Your task to perform on an android device: open wifi settings Image 0: 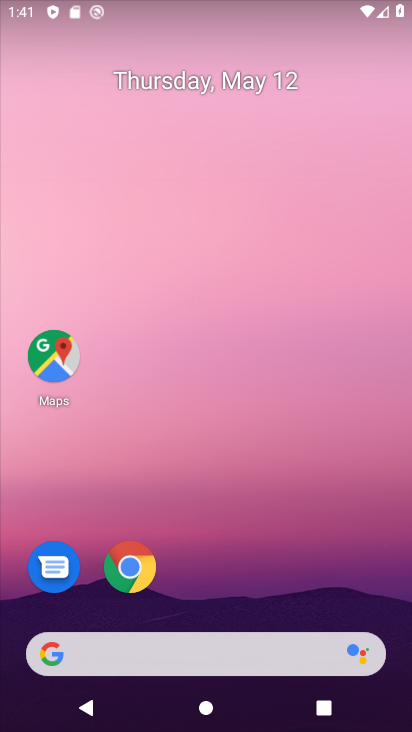
Step 0: click (169, 169)
Your task to perform on an android device: open wifi settings Image 1: 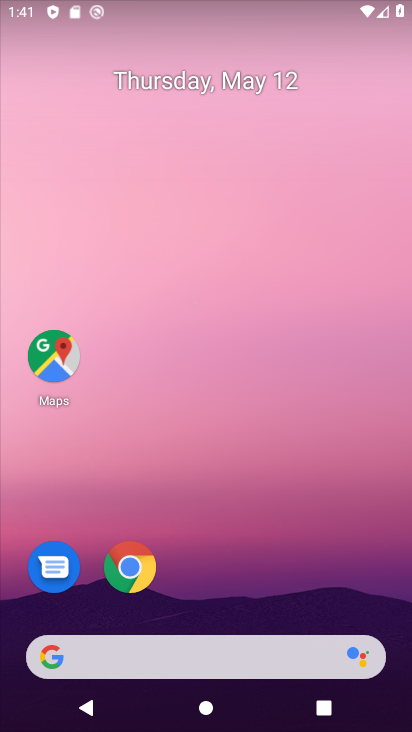
Step 1: drag from (230, 490) to (209, 212)
Your task to perform on an android device: open wifi settings Image 2: 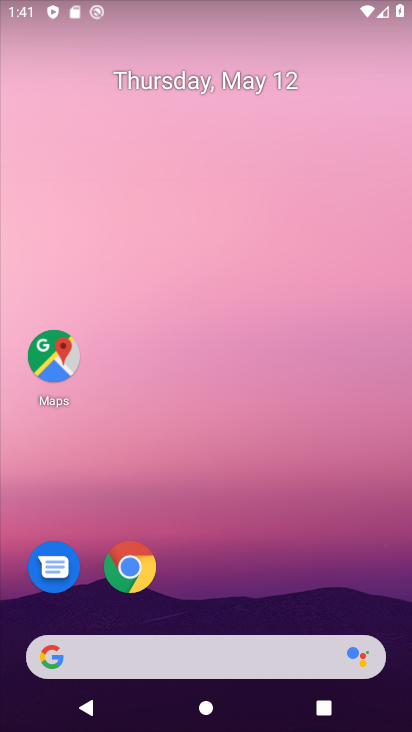
Step 2: drag from (186, 631) to (191, 268)
Your task to perform on an android device: open wifi settings Image 3: 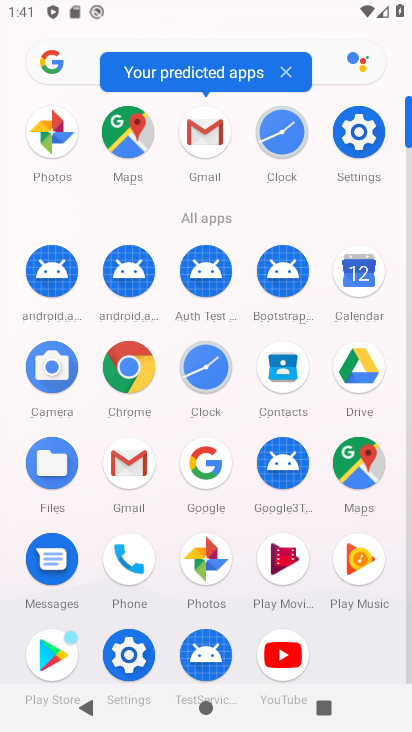
Step 3: click (362, 129)
Your task to perform on an android device: open wifi settings Image 4: 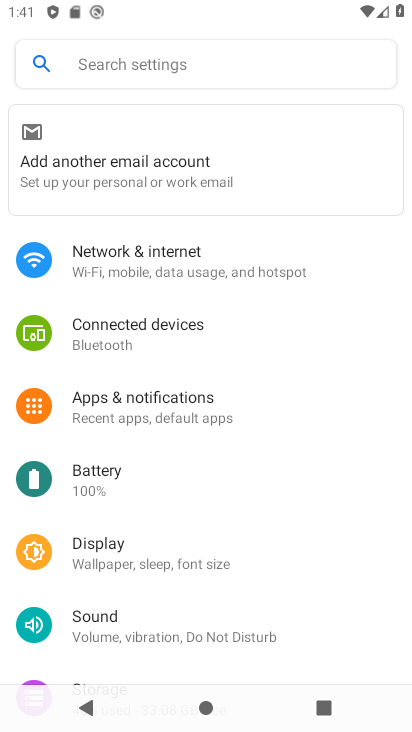
Step 4: click (183, 267)
Your task to perform on an android device: open wifi settings Image 5: 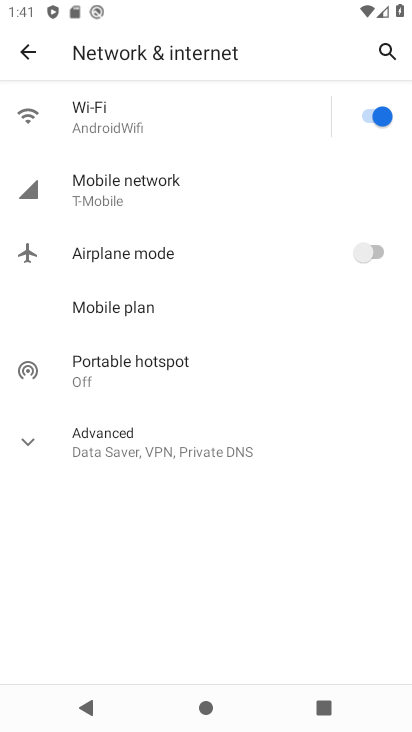
Step 5: click (93, 115)
Your task to perform on an android device: open wifi settings Image 6: 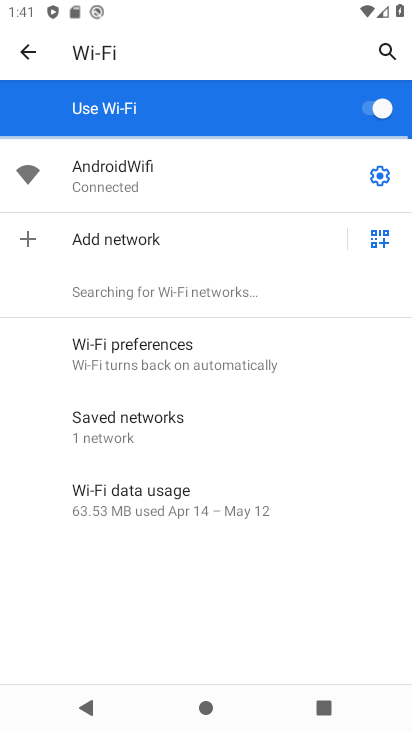
Step 6: click (370, 182)
Your task to perform on an android device: open wifi settings Image 7: 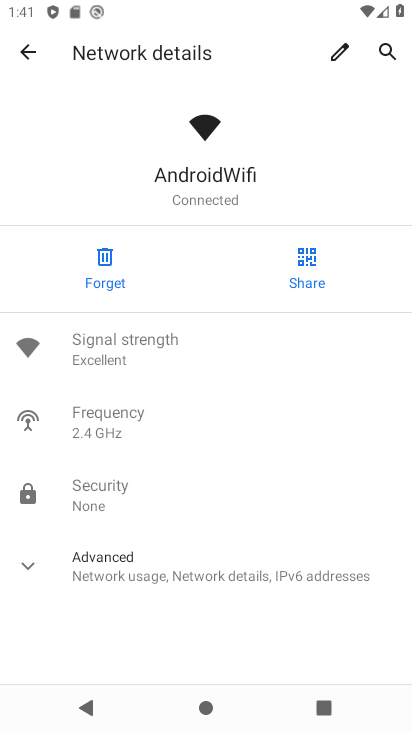
Step 7: task complete